Your task to perform on an android device: snooze an email in the gmail app Image 0: 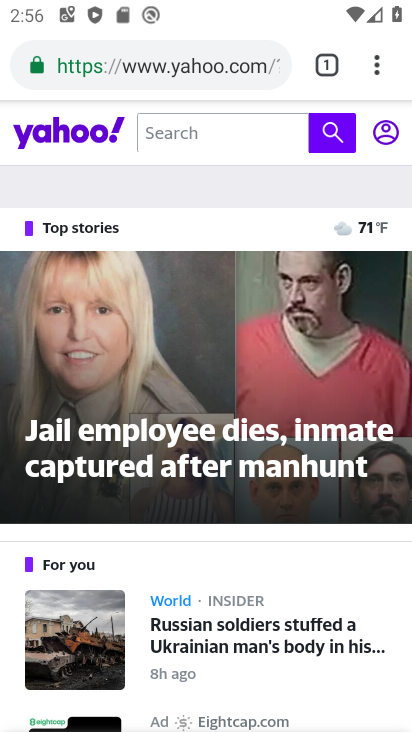
Step 0: press home button
Your task to perform on an android device: snooze an email in the gmail app Image 1: 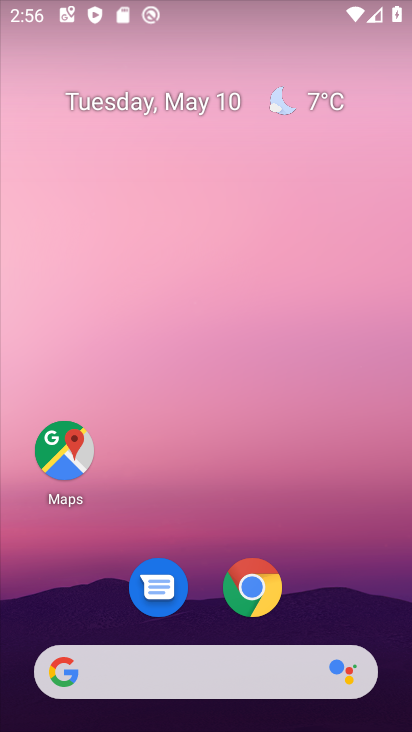
Step 1: drag from (290, 558) to (273, 5)
Your task to perform on an android device: snooze an email in the gmail app Image 2: 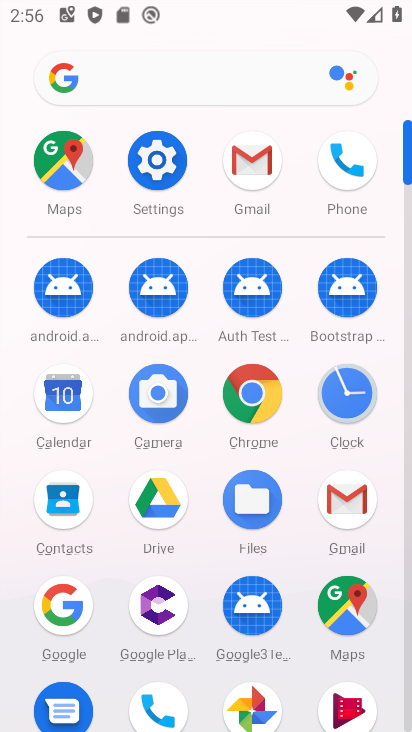
Step 2: click (259, 206)
Your task to perform on an android device: snooze an email in the gmail app Image 3: 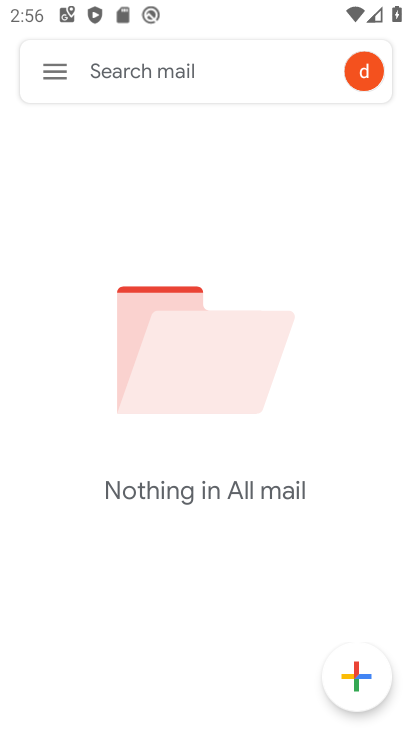
Step 3: task complete